Your task to perform on an android device: Clear the shopping cart on newegg. Add "razer blackwidow" to the cart on newegg Image 0: 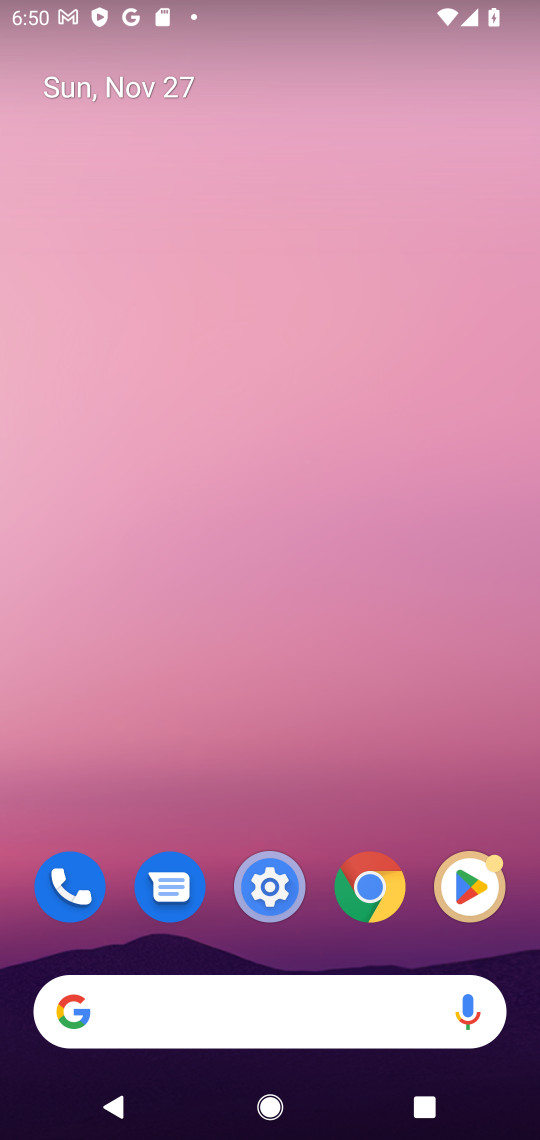
Step 0: click (265, 1023)
Your task to perform on an android device: Clear the shopping cart on newegg. Add "razer blackwidow" to the cart on newegg Image 1: 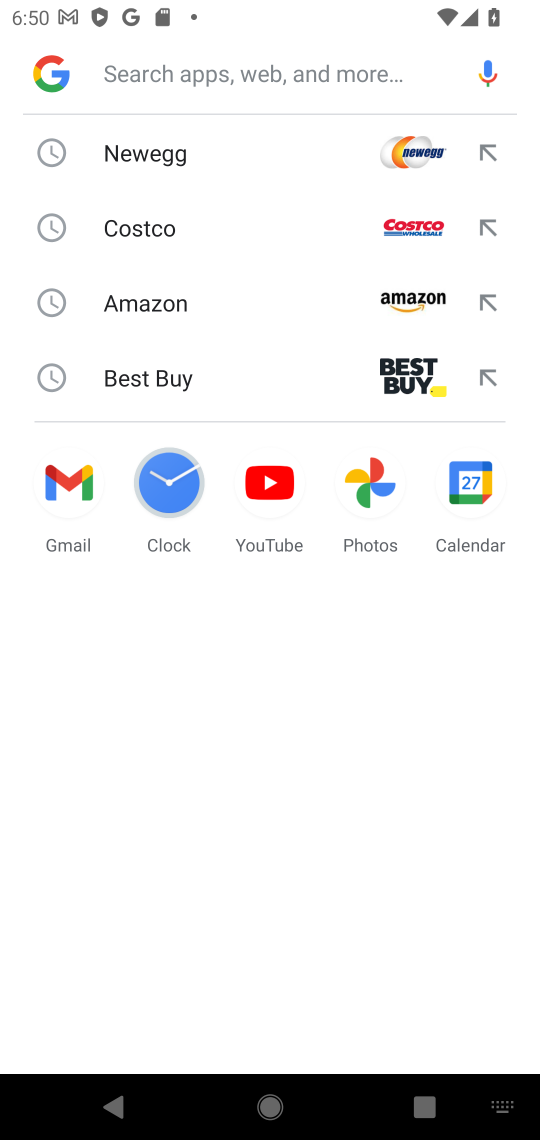
Step 1: type "razer blackwindow"
Your task to perform on an android device: Clear the shopping cart on newegg. Add "razer blackwidow" to the cart on newegg Image 2: 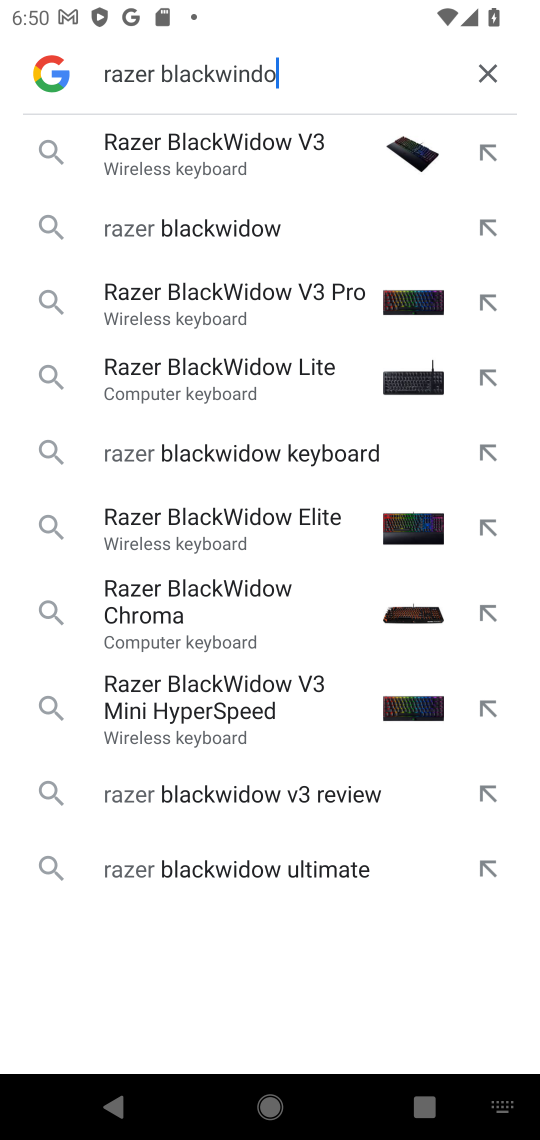
Step 2: click (532, 658)
Your task to perform on an android device: Clear the shopping cart on newegg. Add "razer blackwidow" to the cart on newegg Image 3: 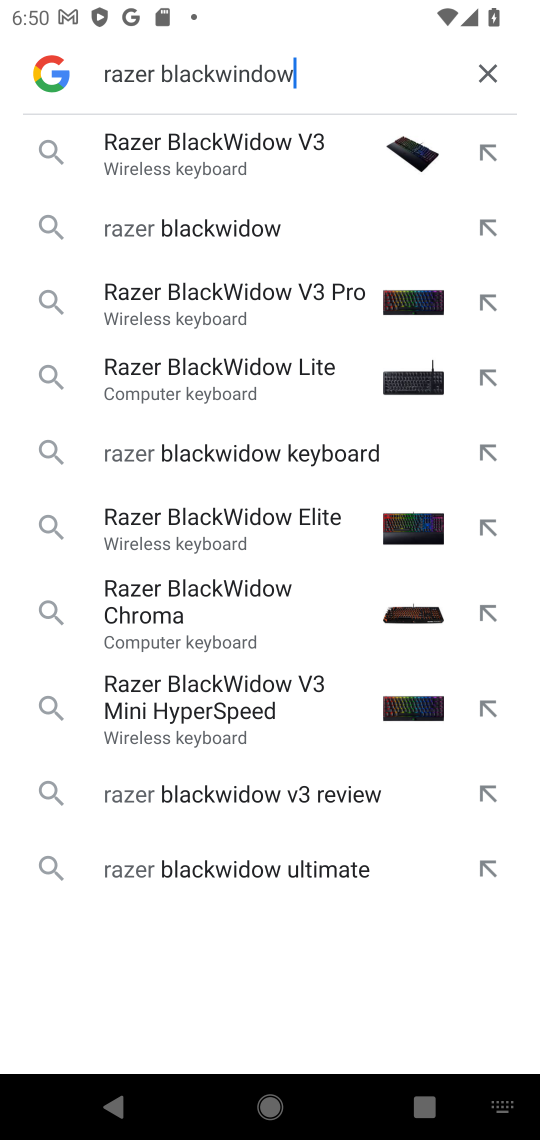
Step 3: click (238, 147)
Your task to perform on an android device: Clear the shopping cart on newegg. Add "razer blackwidow" to the cart on newegg Image 4: 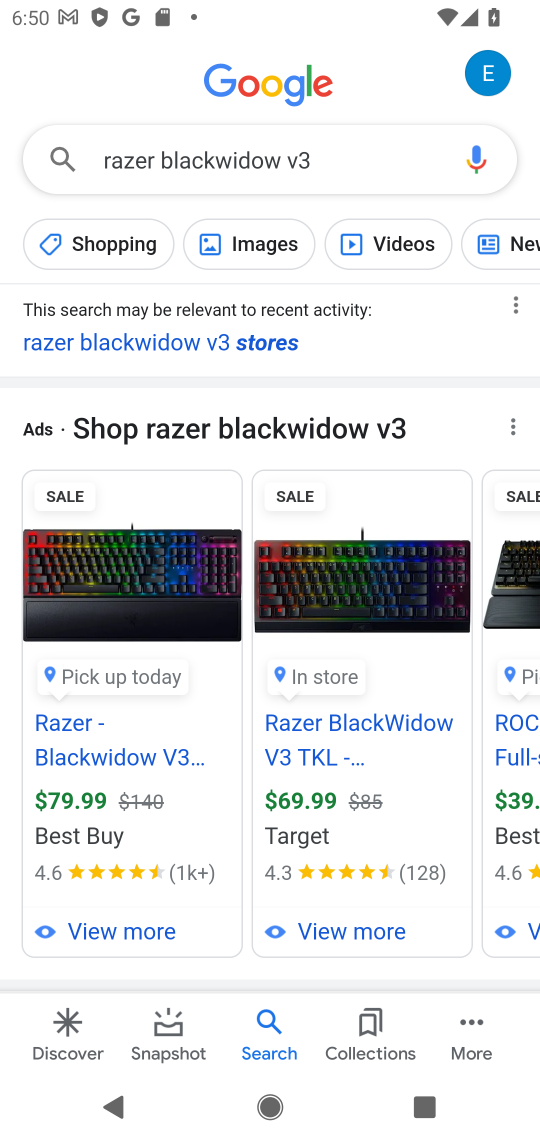
Step 4: drag from (228, 977) to (246, 464)
Your task to perform on an android device: Clear the shopping cart on newegg. Add "razer blackwidow" to the cart on newegg Image 5: 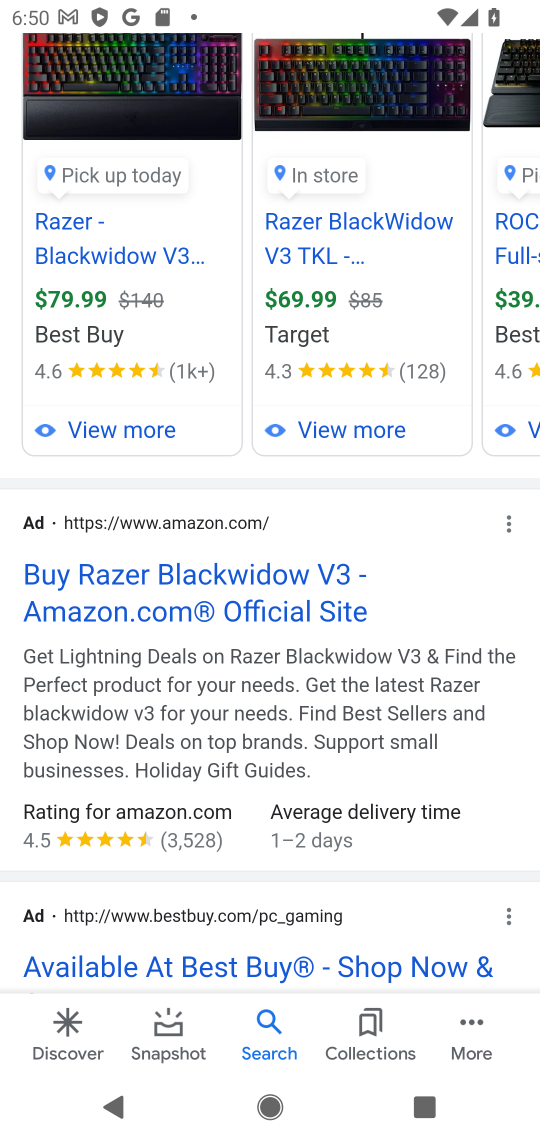
Step 5: click (224, 617)
Your task to perform on an android device: Clear the shopping cart on newegg. Add "razer blackwidow" to the cart on newegg Image 6: 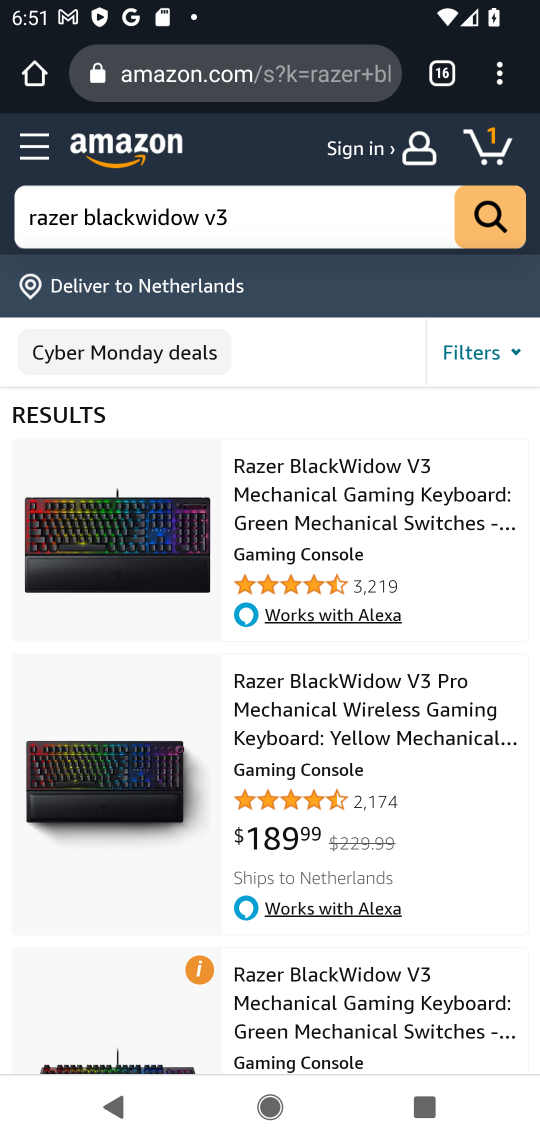
Step 6: click (283, 493)
Your task to perform on an android device: Clear the shopping cart on newegg. Add "razer blackwidow" to the cart on newegg Image 7: 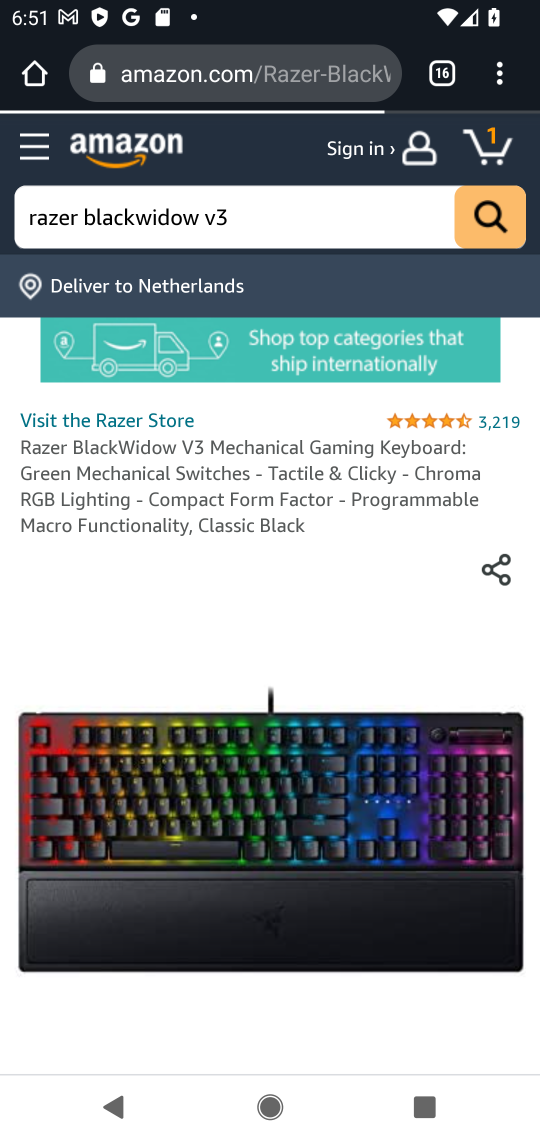
Step 7: drag from (223, 1012) to (137, 523)
Your task to perform on an android device: Clear the shopping cart on newegg. Add "razer blackwidow" to the cart on newegg Image 8: 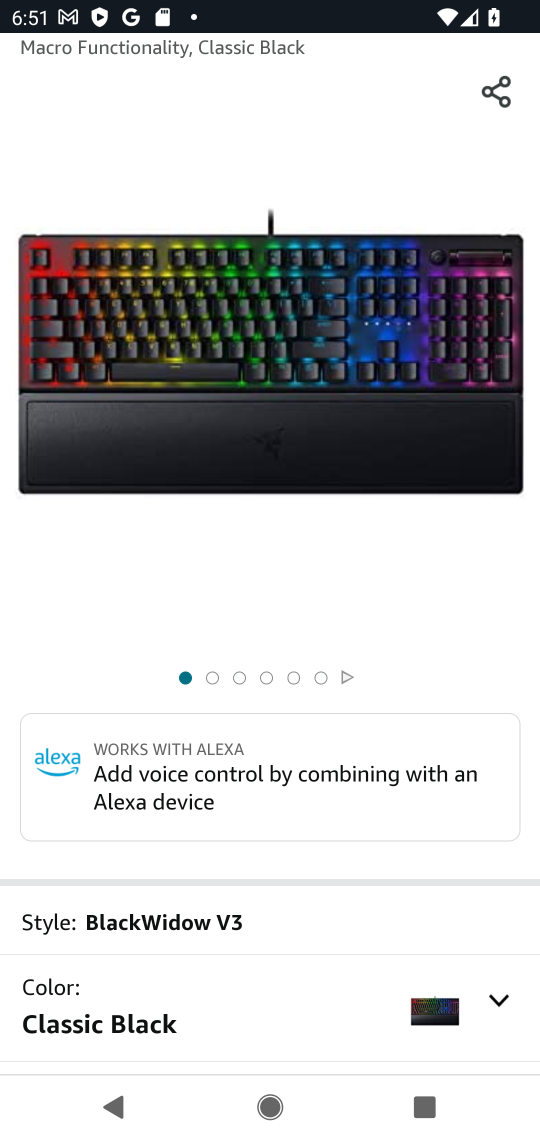
Step 8: drag from (287, 867) to (279, 385)
Your task to perform on an android device: Clear the shopping cart on newegg. Add "razer blackwidow" to the cart on newegg Image 9: 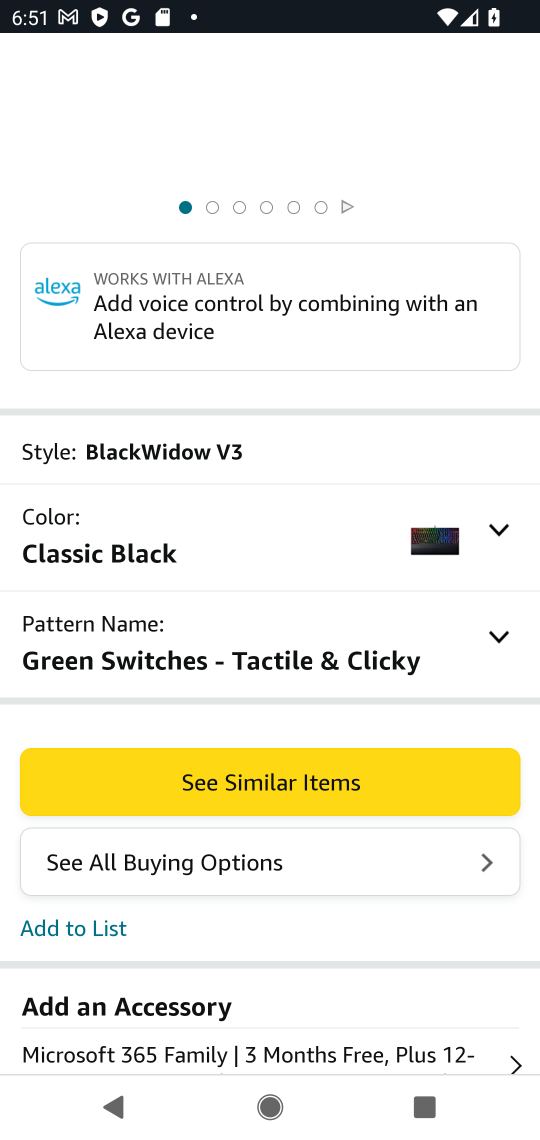
Step 9: drag from (310, 907) to (301, 330)
Your task to perform on an android device: Clear the shopping cart on newegg. Add "razer blackwidow" to the cart on newegg Image 10: 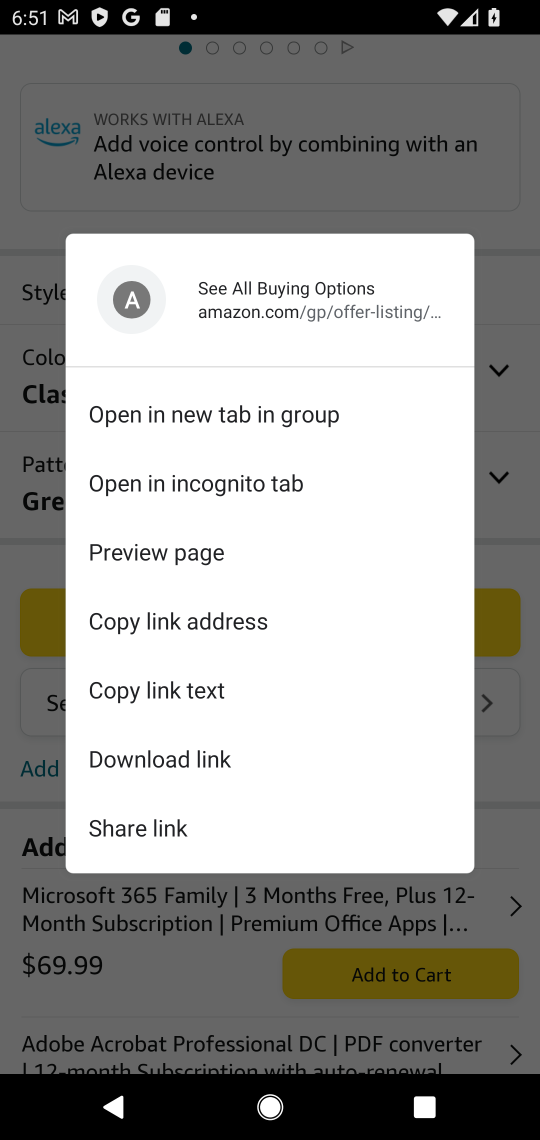
Step 10: click (513, 781)
Your task to perform on an android device: Clear the shopping cart on newegg. Add "razer blackwidow" to the cart on newegg Image 11: 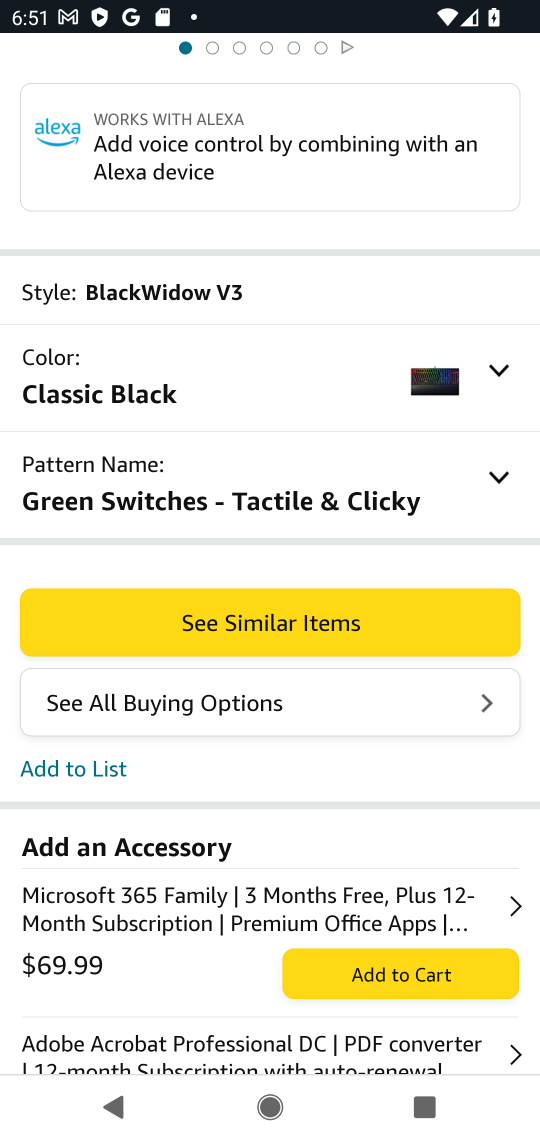
Step 11: click (440, 982)
Your task to perform on an android device: Clear the shopping cart on newegg. Add "razer blackwidow" to the cart on newegg Image 12: 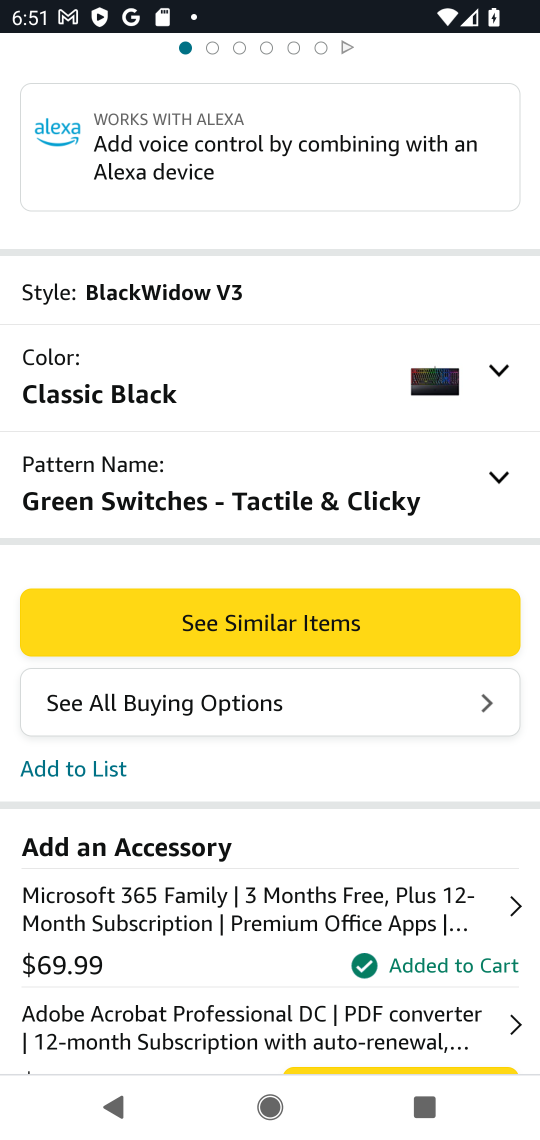
Step 12: task complete